Your task to perform on an android device: Open Google Chrome Image 0: 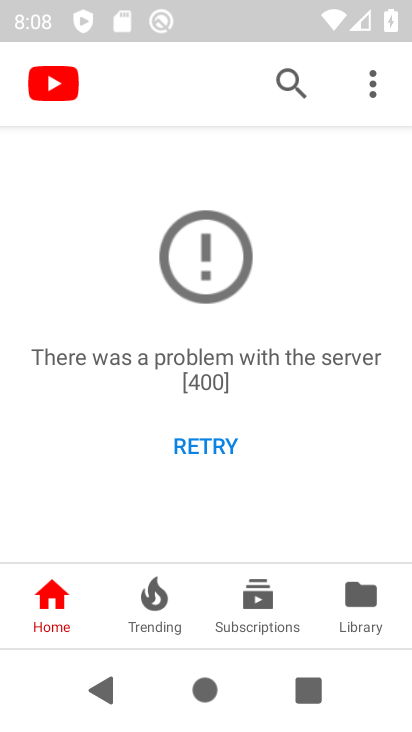
Step 0: press back button
Your task to perform on an android device: Open Google Chrome Image 1: 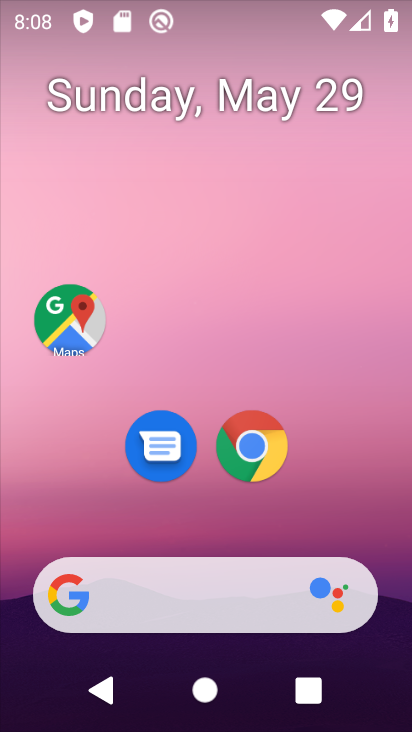
Step 1: click (279, 466)
Your task to perform on an android device: Open Google Chrome Image 2: 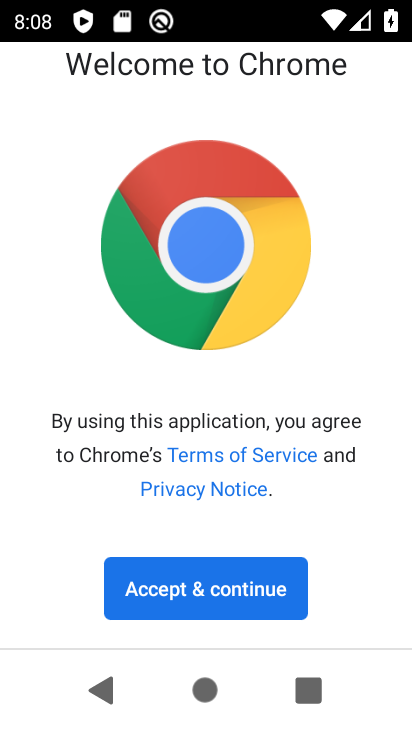
Step 2: click (211, 600)
Your task to perform on an android device: Open Google Chrome Image 3: 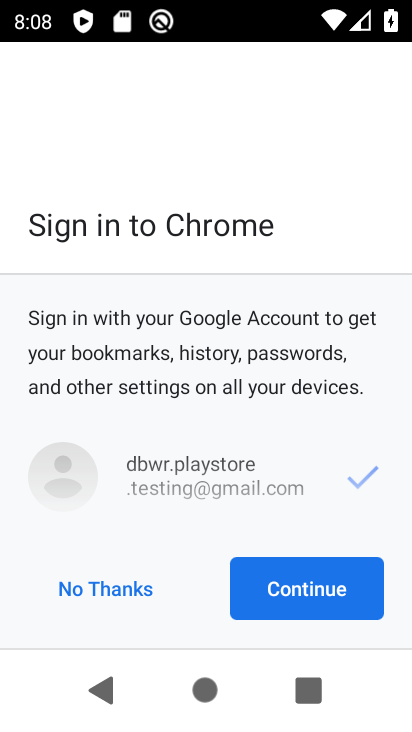
Step 3: click (261, 603)
Your task to perform on an android device: Open Google Chrome Image 4: 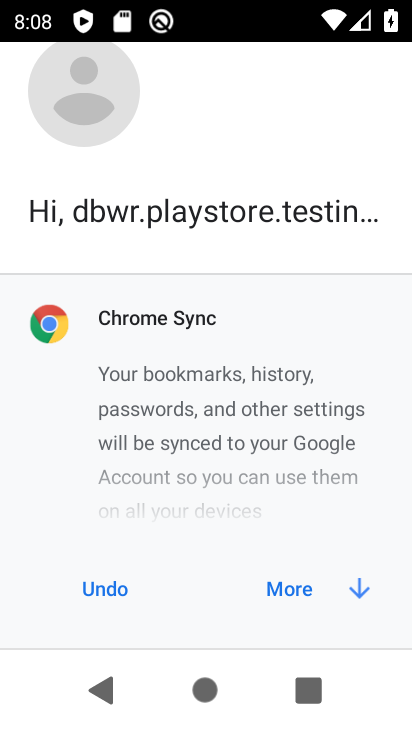
Step 4: click (279, 603)
Your task to perform on an android device: Open Google Chrome Image 5: 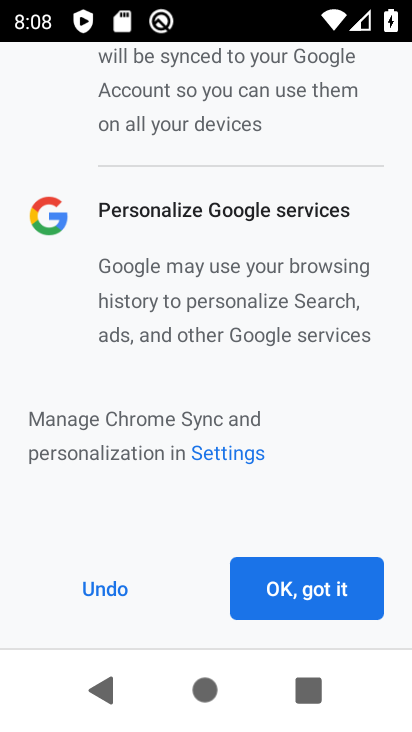
Step 5: click (279, 603)
Your task to perform on an android device: Open Google Chrome Image 6: 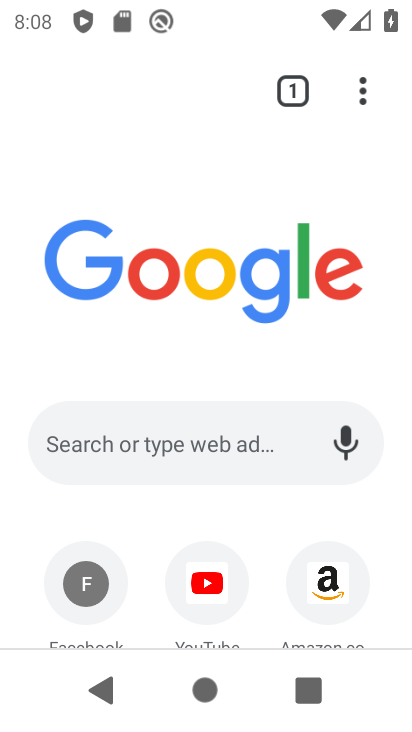
Step 6: task complete